Your task to perform on an android device: Go to eBay Image 0: 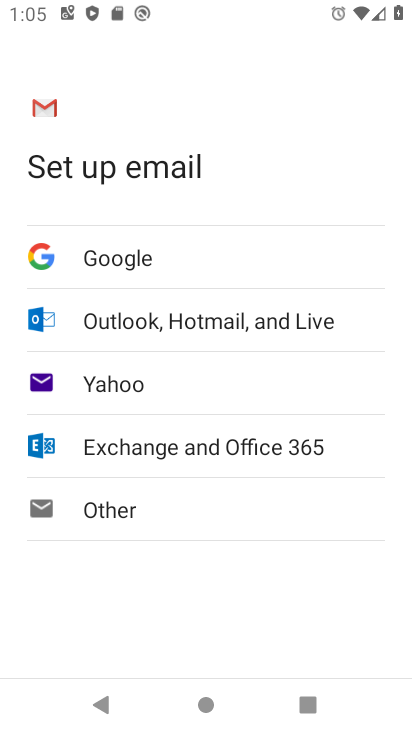
Step 0: press home button
Your task to perform on an android device: Go to eBay Image 1: 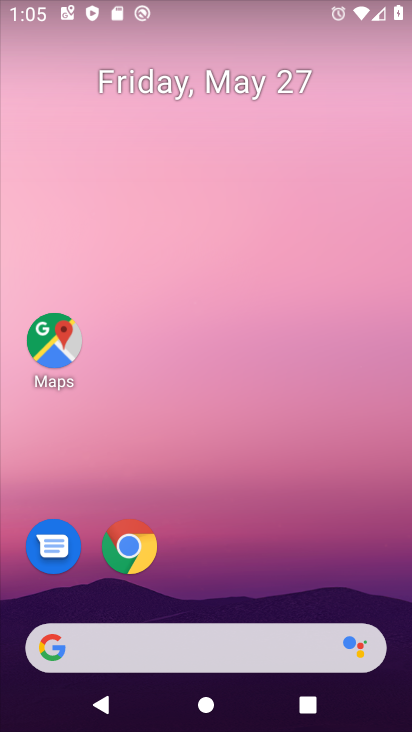
Step 1: drag from (241, 643) to (211, 75)
Your task to perform on an android device: Go to eBay Image 2: 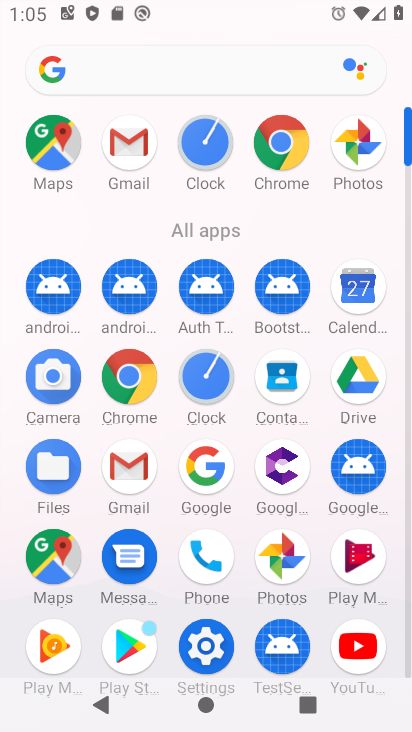
Step 2: click (275, 157)
Your task to perform on an android device: Go to eBay Image 3: 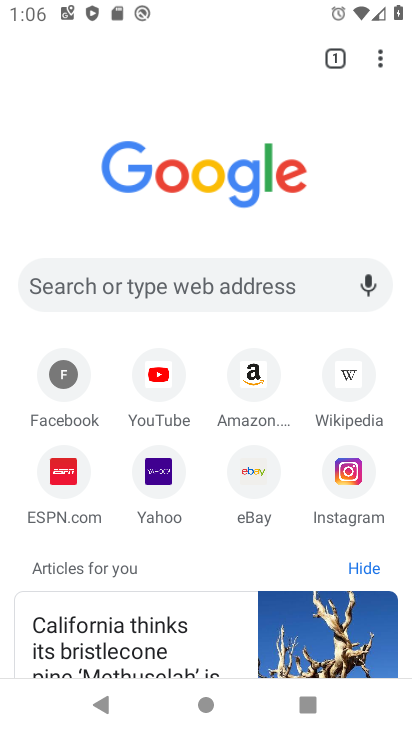
Step 3: click (244, 488)
Your task to perform on an android device: Go to eBay Image 4: 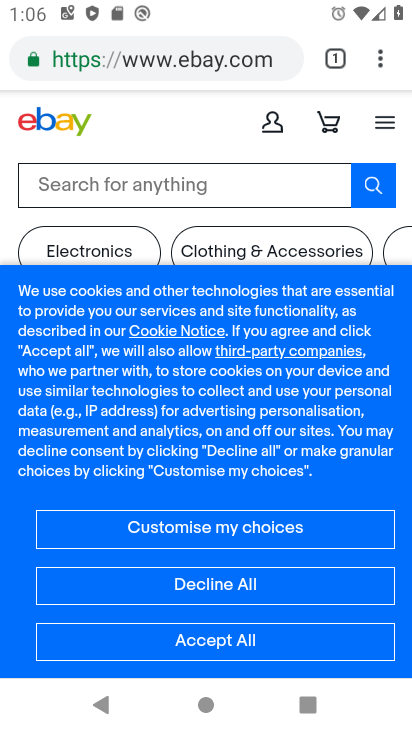
Step 4: task complete